Your task to perform on an android device: Find coffee shops on Maps Image 0: 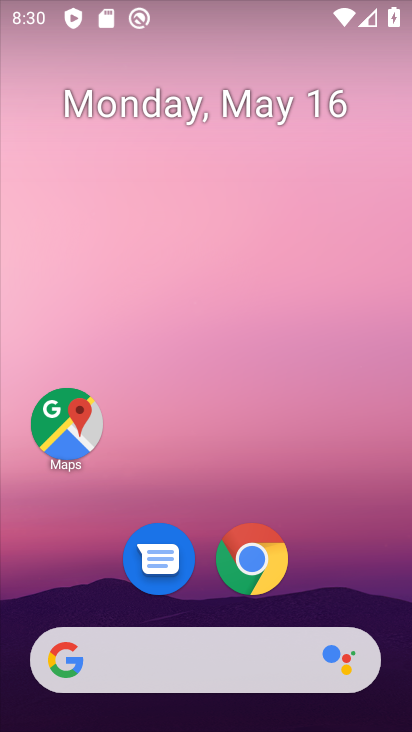
Step 0: drag from (328, 602) to (327, 113)
Your task to perform on an android device: Find coffee shops on Maps Image 1: 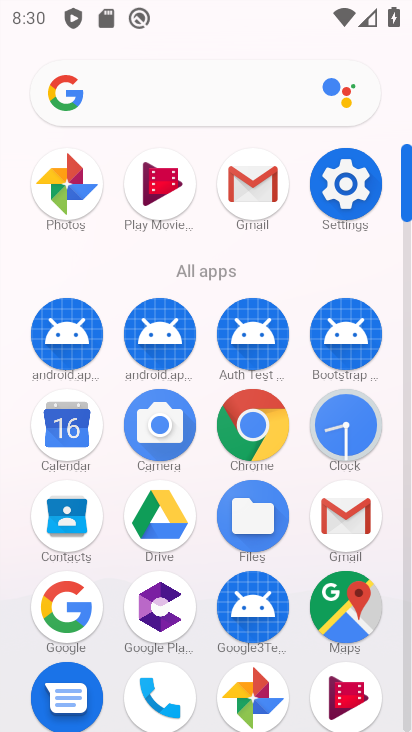
Step 1: click (358, 618)
Your task to perform on an android device: Find coffee shops on Maps Image 2: 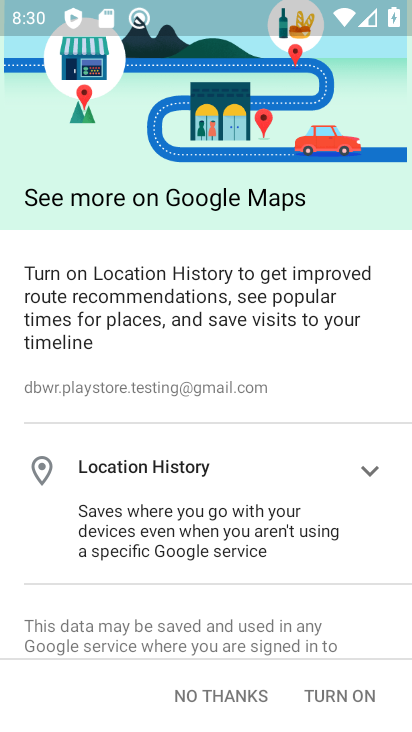
Step 2: click (203, 702)
Your task to perform on an android device: Find coffee shops on Maps Image 3: 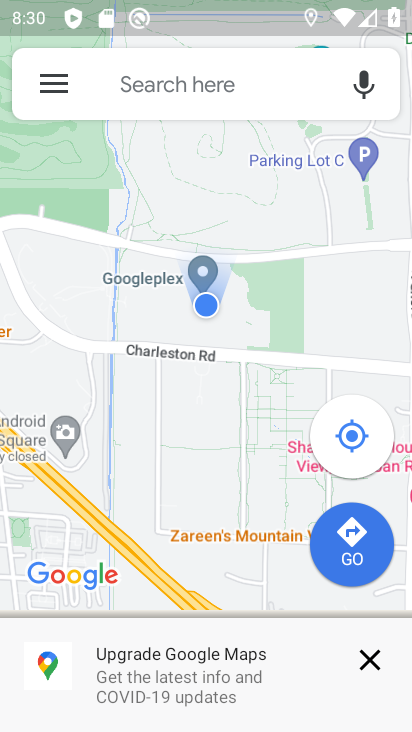
Step 3: click (183, 97)
Your task to perform on an android device: Find coffee shops on Maps Image 4: 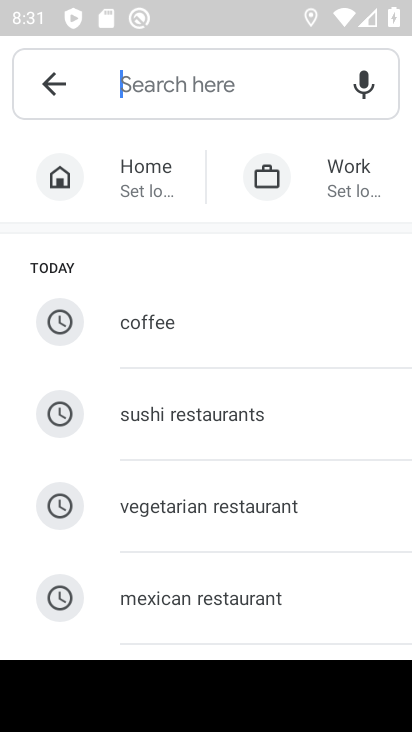
Step 4: type "coffee shops"
Your task to perform on an android device: Find coffee shops on Maps Image 5: 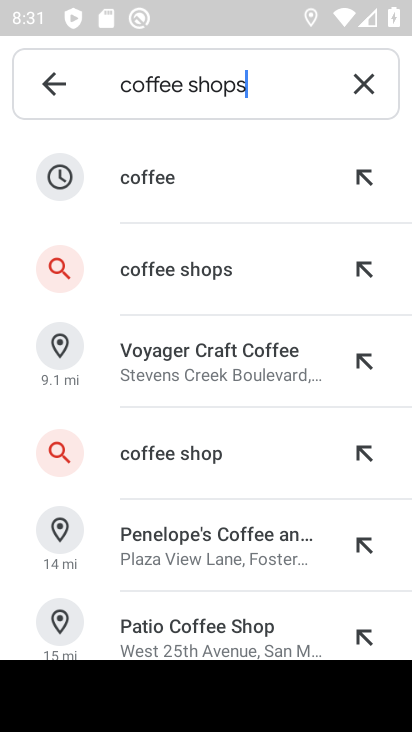
Step 5: click (262, 259)
Your task to perform on an android device: Find coffee shops on Maps Image 6: 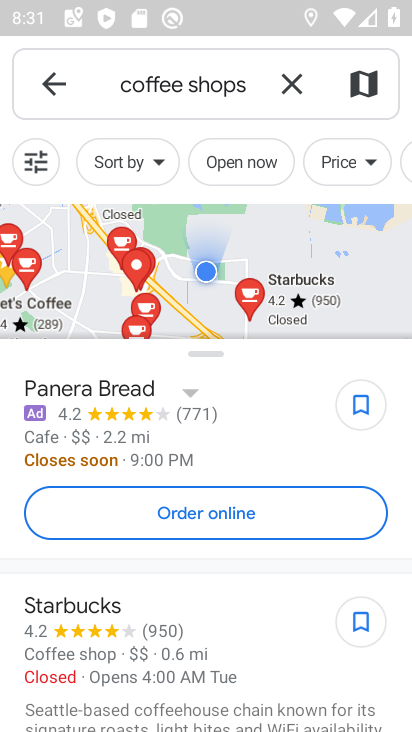
Step 6: task complete